Your task to perform on an android device: move a message to another label in the gmail app Image 0: 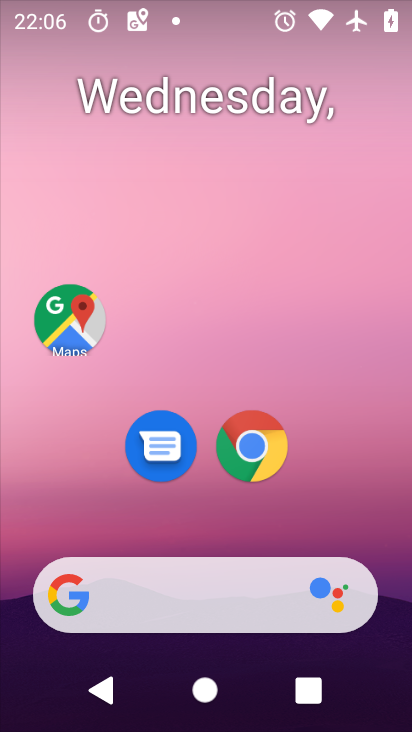
Step 0: press home button
Your task to perform on an android device: move a message to another label in the gmail app Image 1: 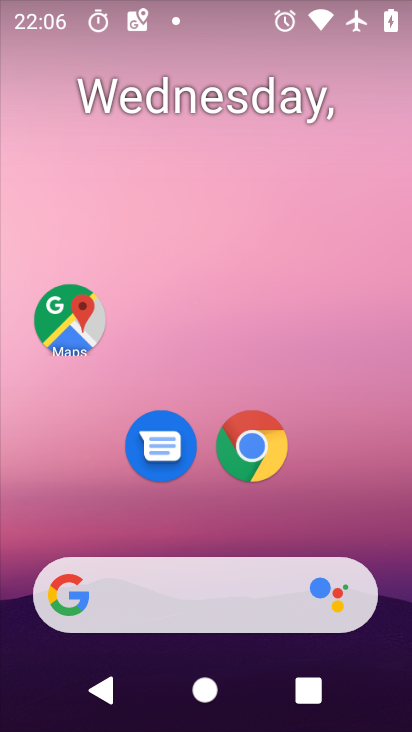
Step 1: drag from (196, 604) to (318, 64)
Your task to perform on an android device: move a message to another label in the gmail app Image 2: 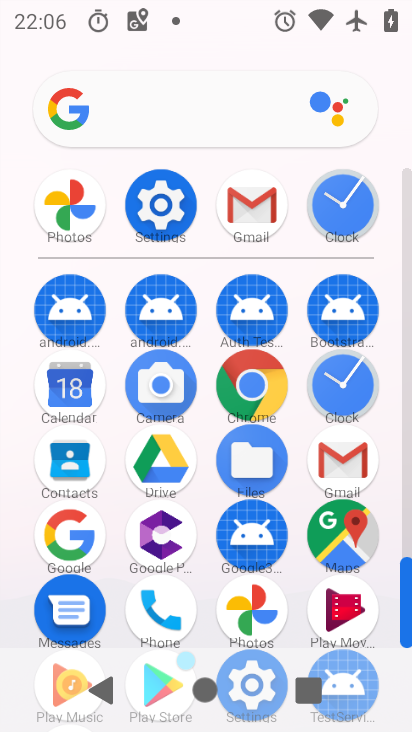
Step 2: click (237, 197)
Your task to perform on an android device: move a message to another label in the gmail app Image 3: 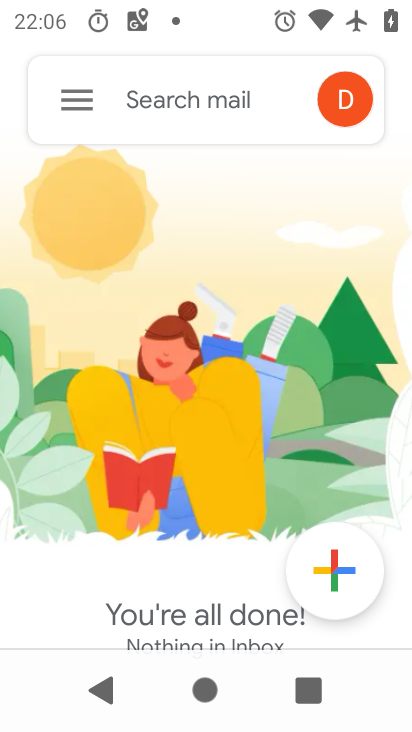
Step 3: task complete